Your task to perform on an android device: Open Youtube and go to the subscriptions tab Image 0: 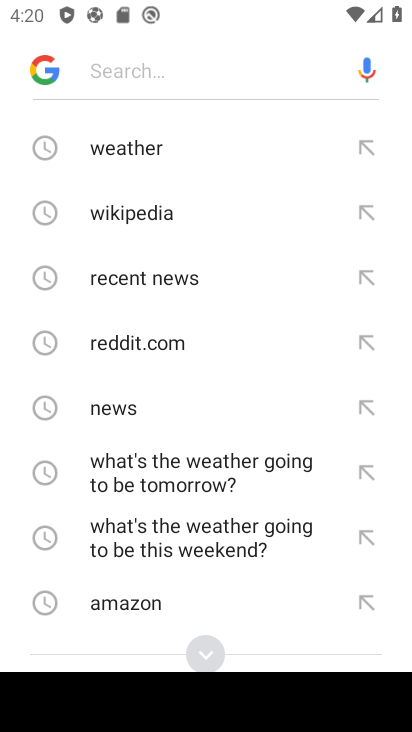
Step 0: press home button
Your task to perform on an android device: Open Youtube and go to the subscriptions tab Image 1: 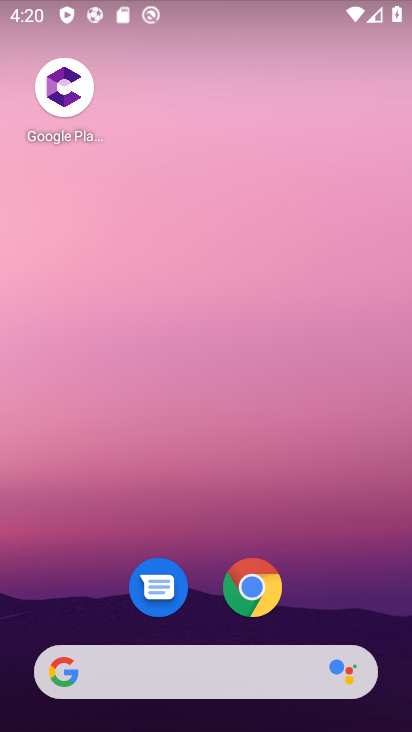
Step 1: drag from (209, 617) to (258, 27)
Your task to perform on an android device: Open Youtube and go to the subscriptions tab Image 2: 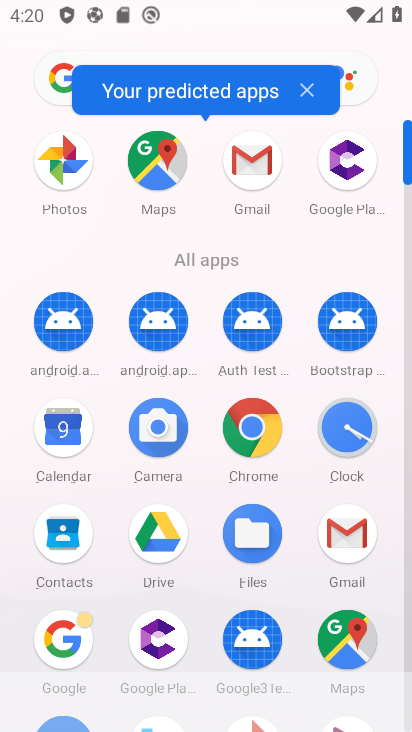
Step 2: drag from (302, 591) to (331, 28)
Your task to perform on an android device: Open Youtube and go to the subscriptions tab Image 3: 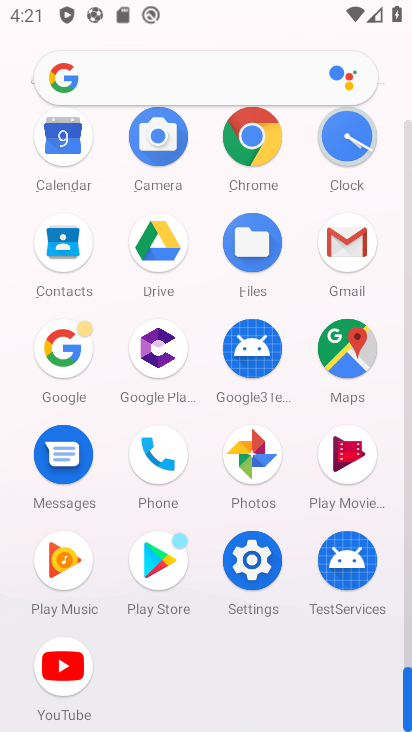
Step 3: click (65, 675)
Your task to perform on an android device: Open Youtube and go to the subscriptions tab Image 4: 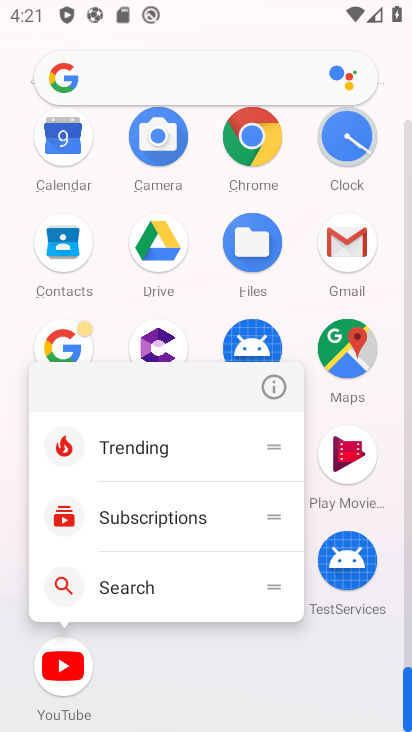
Step 4: click (57, 674)
Your task to perform on an android device: Open Youtube and go to the subscriptions tab Image 5: 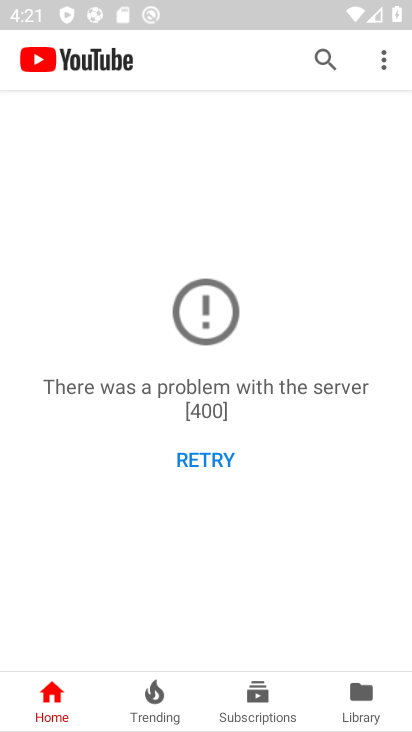
Step 5: click (244, 709)
Your task to perform on an android device: Open Youtube and go to the subscriptions tab Image 6: 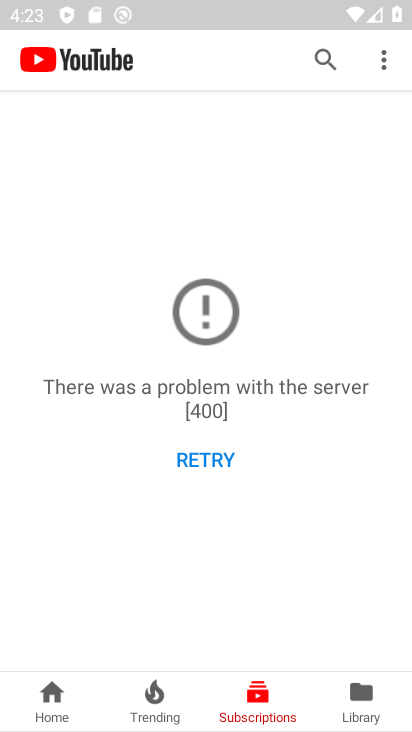
Step 6: task complete